Your task to perform on an android device: delete the emails in spam in the gmail app Image 0: 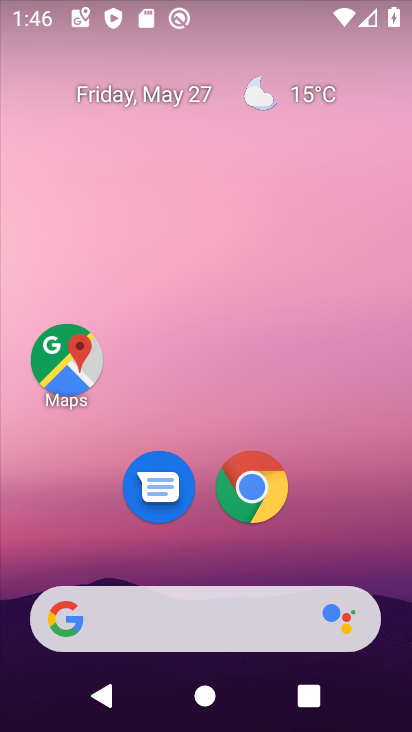
Step 0: drag from (350, 468) to (297, 95)
Your task to perform on an android device: delete the emails in spam in the gmail app Image 1: 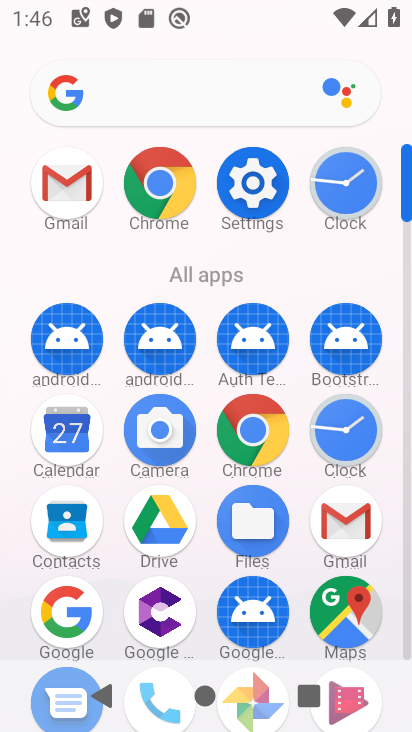
Step 1: click (353, 517)
Your task to perform on an android device: delete the emails in spam in the gmail app Image 2: 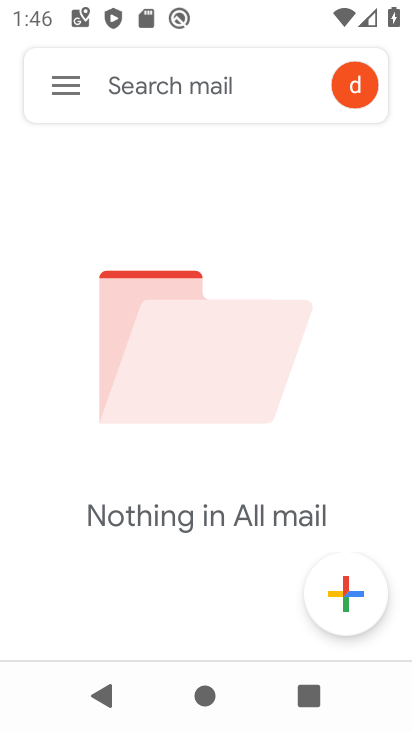
Step 2: click (58, 79)
Your task to perform on an android device: delete the emails in spam in the gmail app Image 3: 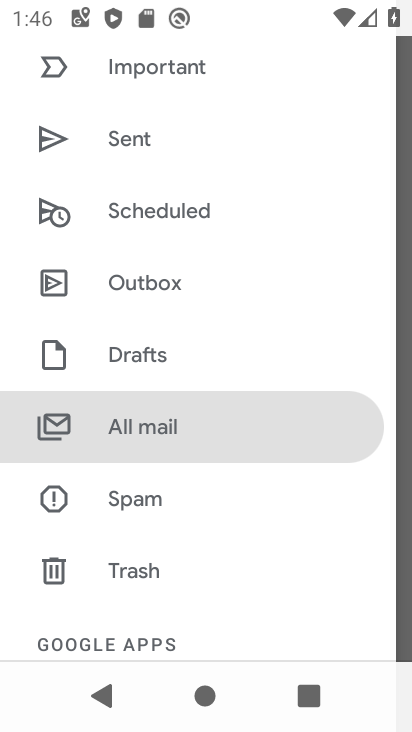
Step 3: drag from (153, 538) to (176, 310)
Your task to perform on an android device: delete the emails in spam in the gmail app Image 4: 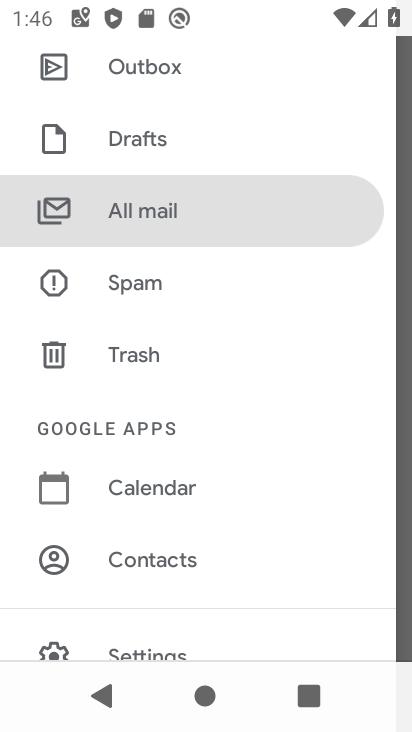
Step 4: click (170, 306)
Your task to perform on an android device: delete the emails in spam in the gmail app Image 5: 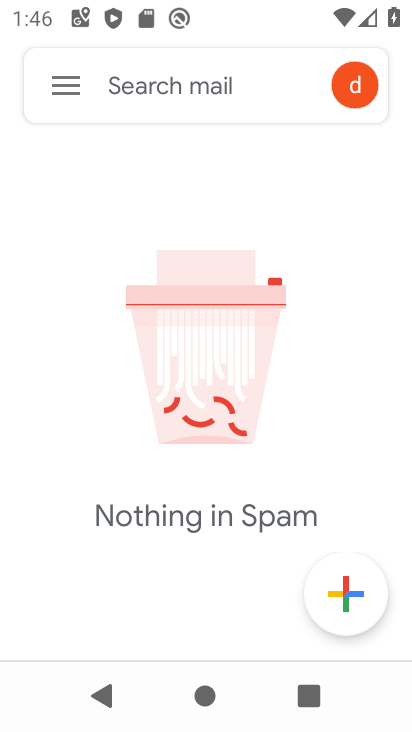
Step 5: task complete